Your task to perform on an android device: Find coffee shops on Maps Image 0: 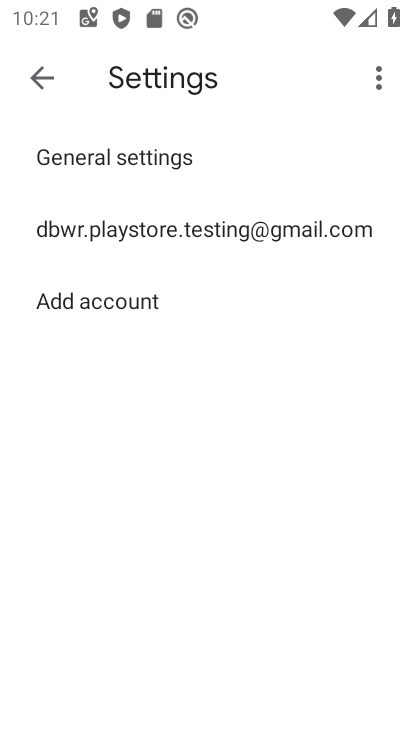
Step 0: press home button
Your task to perform on an android device: Find coffee shops on Maps Image 1: 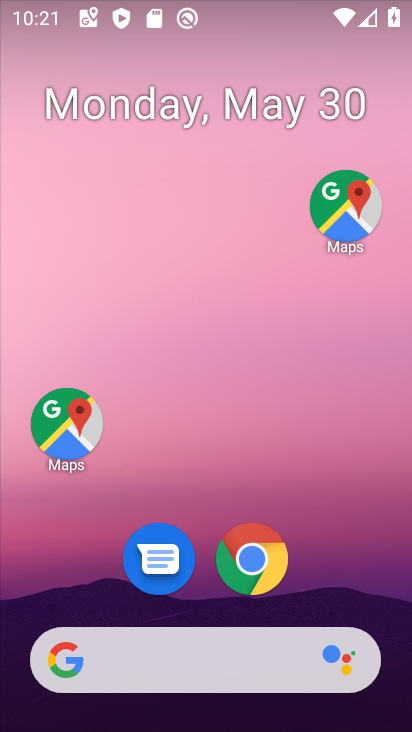
Step 1: click (59, 424)
Your task to perform on an android device: Find coffee shops on Maps Image 2: 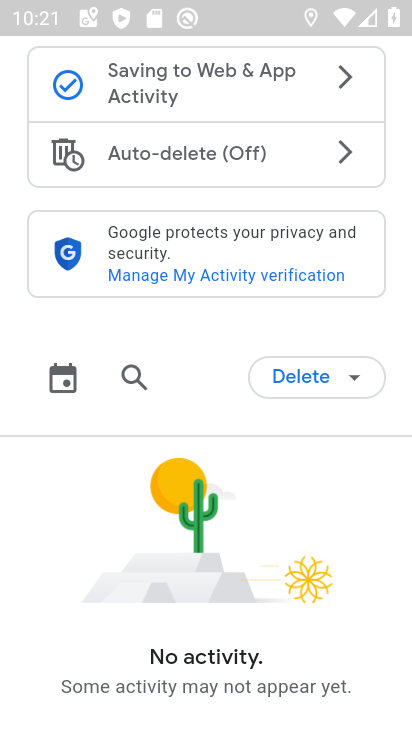
Step 2: press back button
Your task to perform on an android device: Find coffee shops on Maps Image 3: 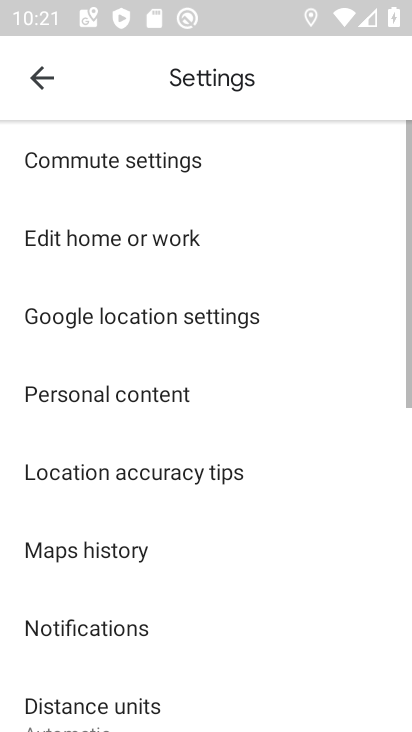
Step 3: press back button
Your task to perform on an android device: Find coffee shops on Maps Image 4: 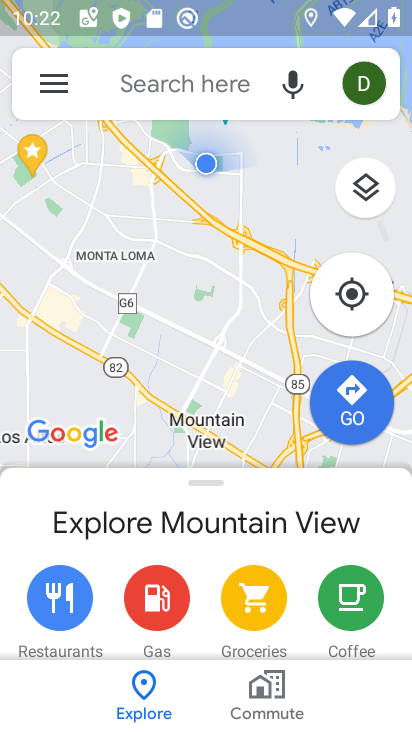
Step 4: click (231, 83)
Your task to perform on an android device: Find coffee shops on Maps Image 5: 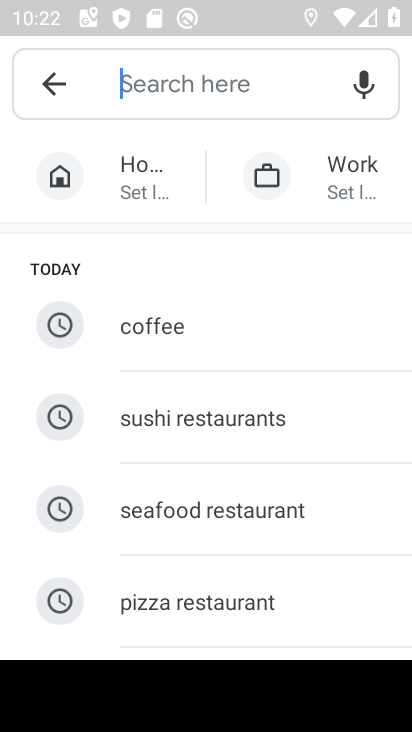
Step 5: type "coffee shops"
Your task to perform on an android device: Find coffee shops on Maps Image 6: 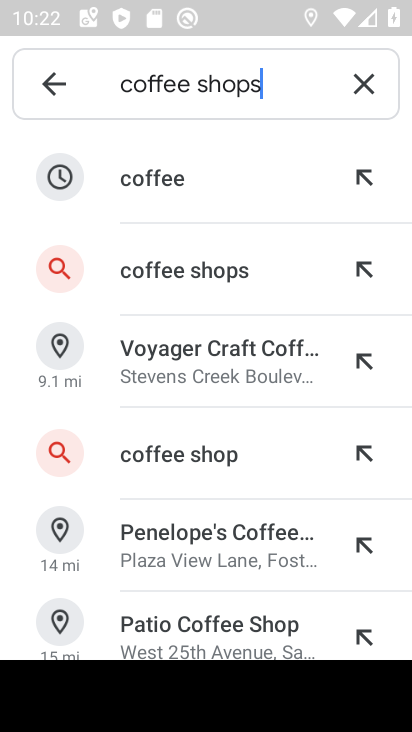
Step 6: click (258, 285)
Your task to perform on an android device: Find coffee shops on Maps Image 7: 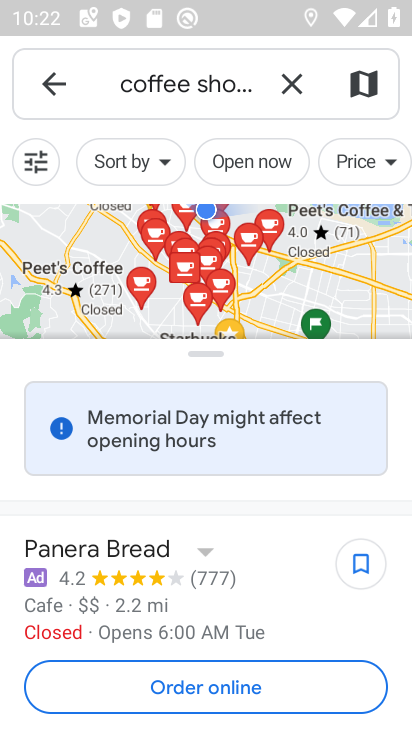
Step 7: task complete